Your task to perform on an android device: move an email to a new category in the gmail app Image 0: 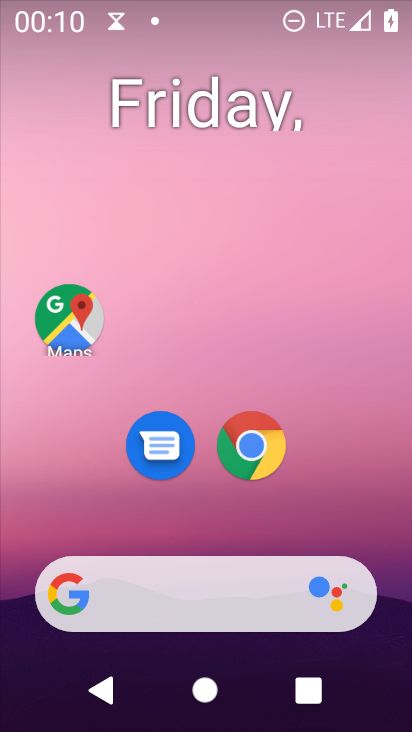
Step 0: drag from (238, 728) to (226, 90)
Your task to perform on an android device: move an email to a new category in the gmail app Image 1: 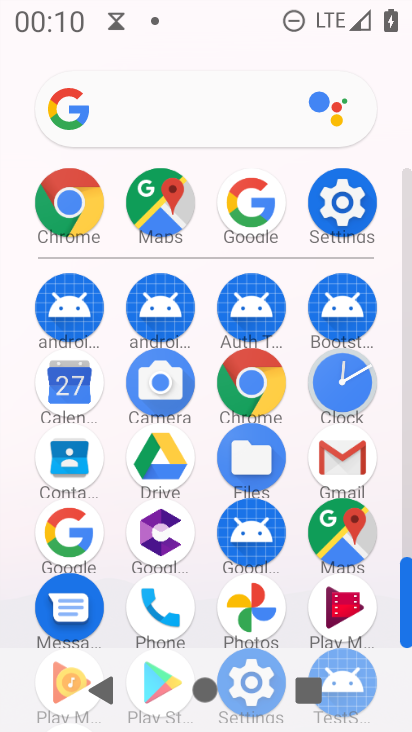
Step 1: click (347, 461)
Your task to perform on an android device: move an email to a new category in the gmail app Image 2: 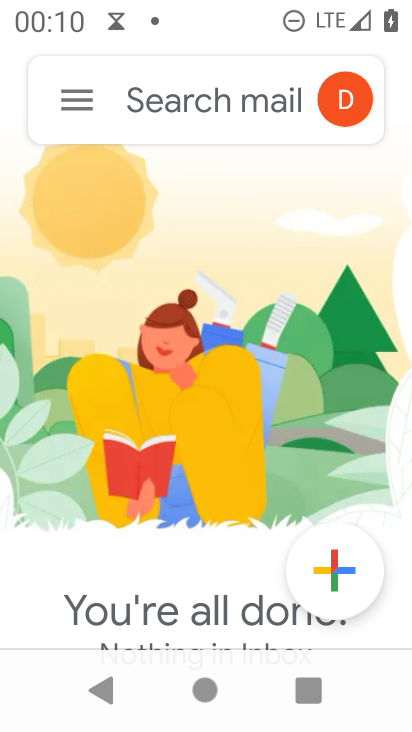
Step 2: task complete